Your task to perform on an android device: turn vacation reply on in the gmail app Image 0: 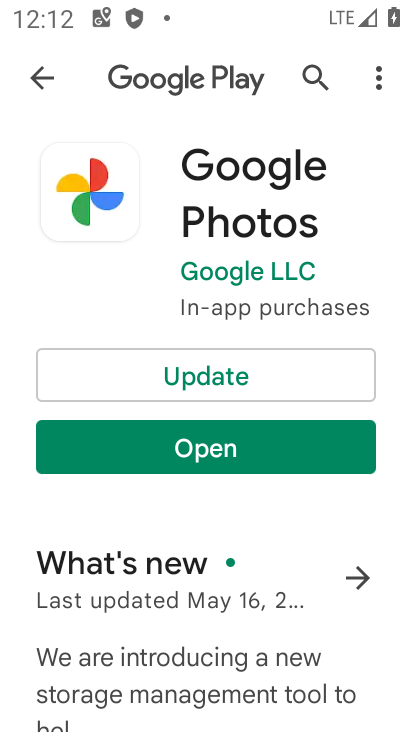
Step 0: press home button
Your task to perform on an android device: turn vacation reply on in the gmail app Image 1: 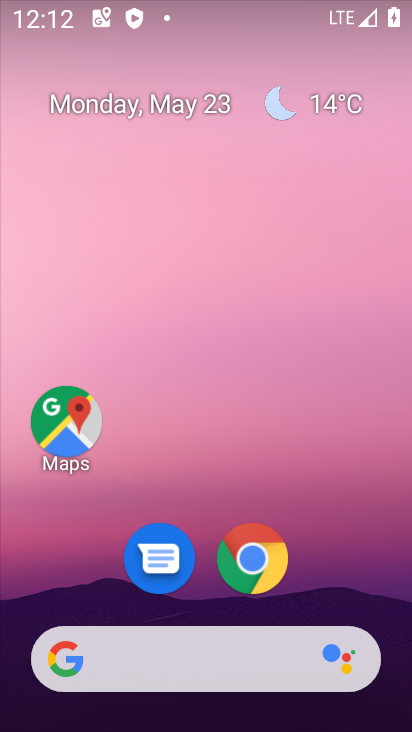
Step 1: drag from (363, 619) to (401, 32)
Your task to perform on an android device: turn vacation reply on in the gmail app Image 2: 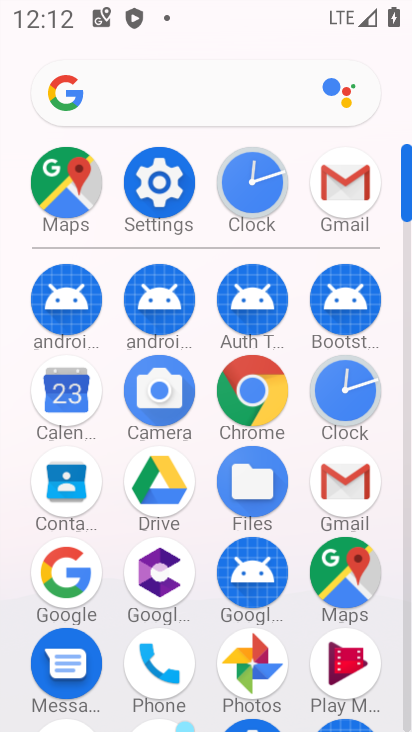
Step 2: click (344, 190)
Your task to perform on an android device: turn vacation reply on in the gmail app Image 3: 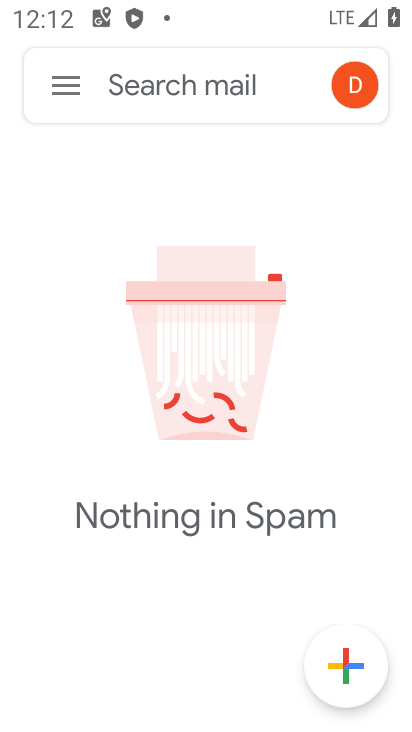
Step 3: click (56, 92)
Your task to perform on an android device: turn vacation reply on in the gmail app Image 4: 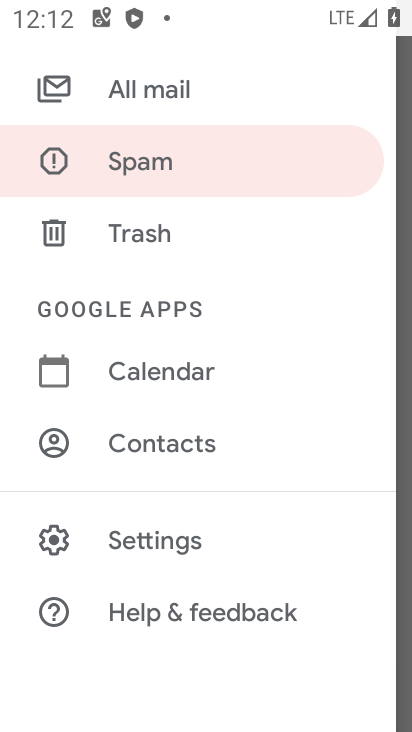
Step 4: click (153, 538)
Your task to perform on an android device: turn vacation reply on in the gmail app Image 5: 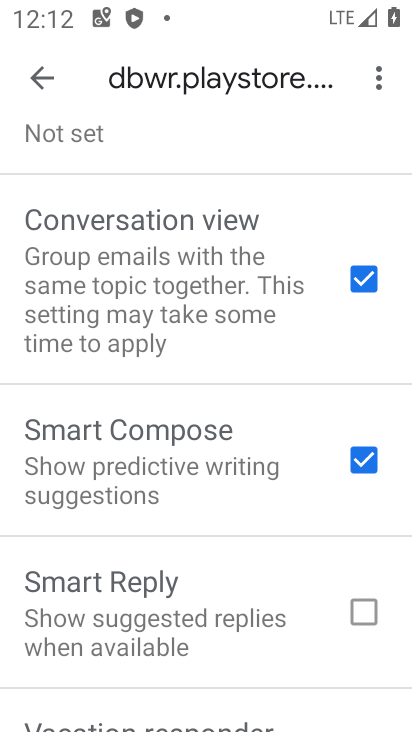
Step 5: drag from (150, 591) to (174, 215)
Your task to perform on an android device: turn vacation reply on in the gmail app Image 6: 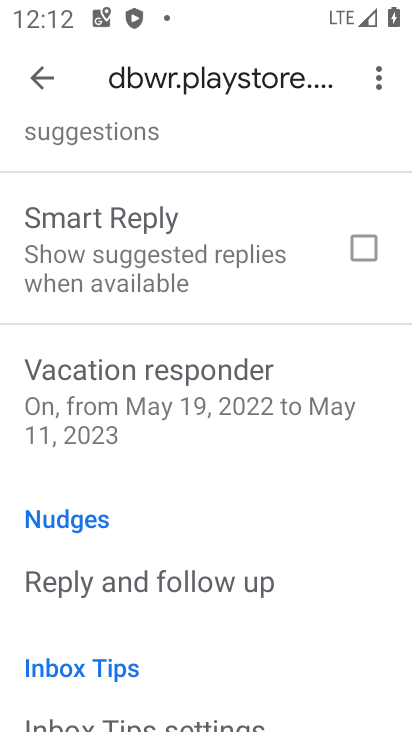
Step 6: click (161, 406)
Your task to perform on an android device: turn vacation reply on in the gmail app Image 7: 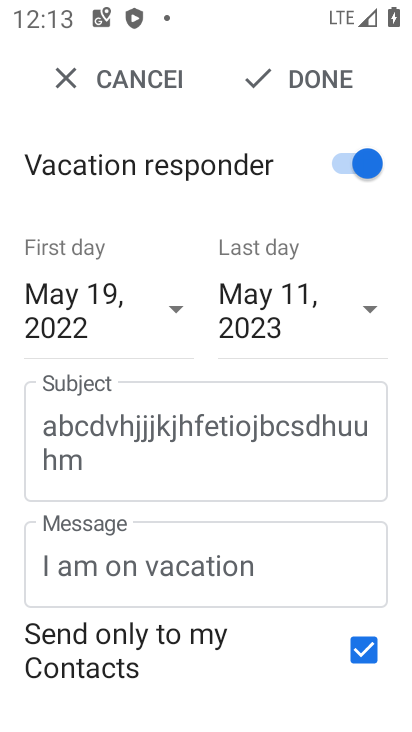
Step 7: click (333, 78)
Your task to perform on an android device: turn vacation reply on in the gmail app Image 8: 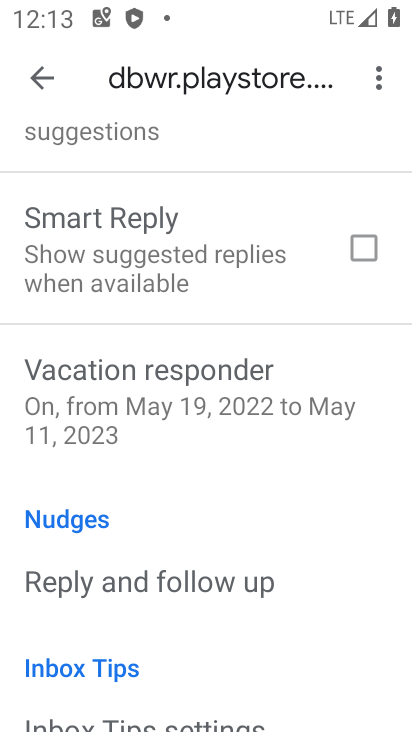
Step 8: task complete